Your task to perform on an android device: turn on airplane mode Image 0: 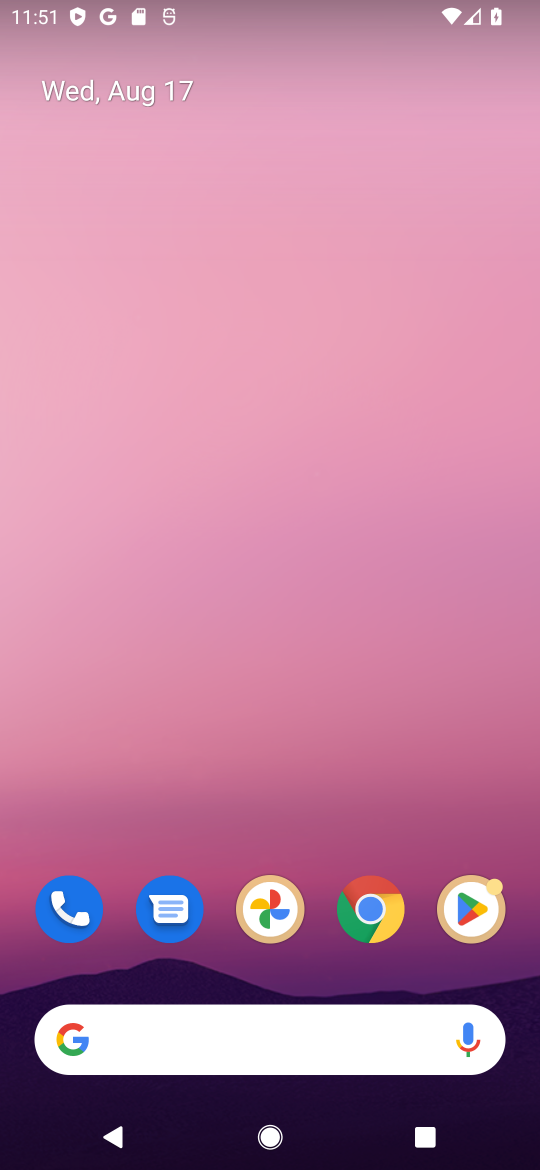
Step 0: drag from (274, 809) to (283, 10)
Your task to perform on an android device: turn on airplane mode Image 1: 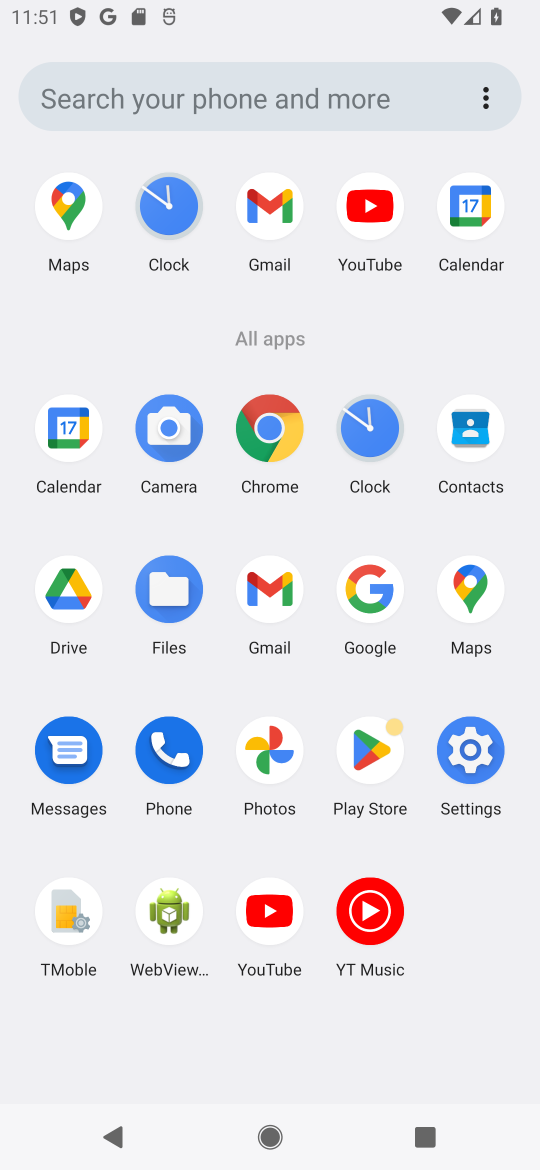
Step 1: click (469, 750)
Your task to perform on an android device: turn on airplane mode Image 2: 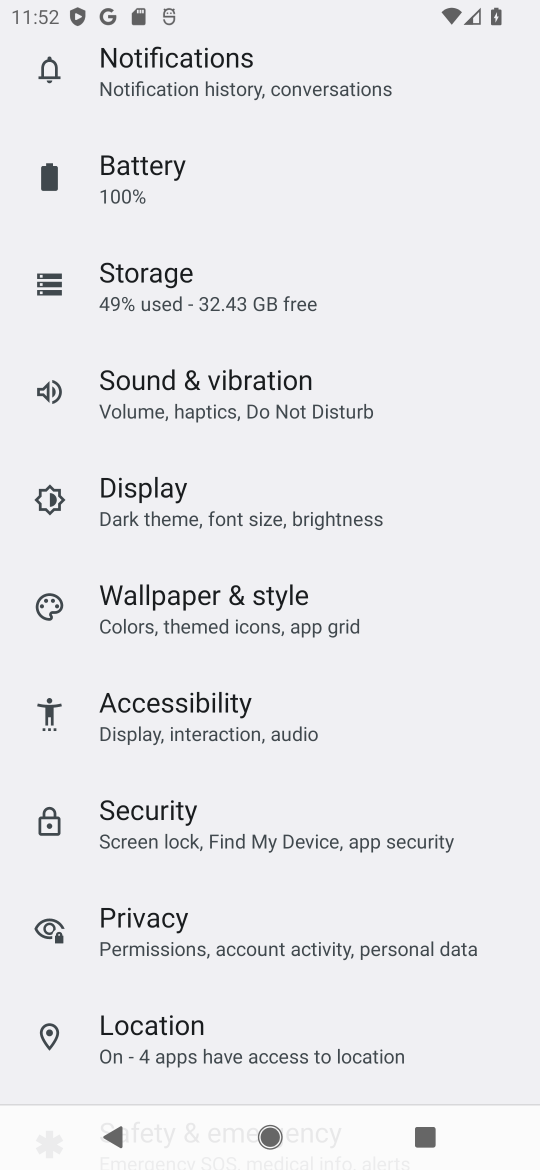
Step 2: drag from (247, 228) to (247, 892)
Your task to perform on an android device: turn on airplane mode Image 3: 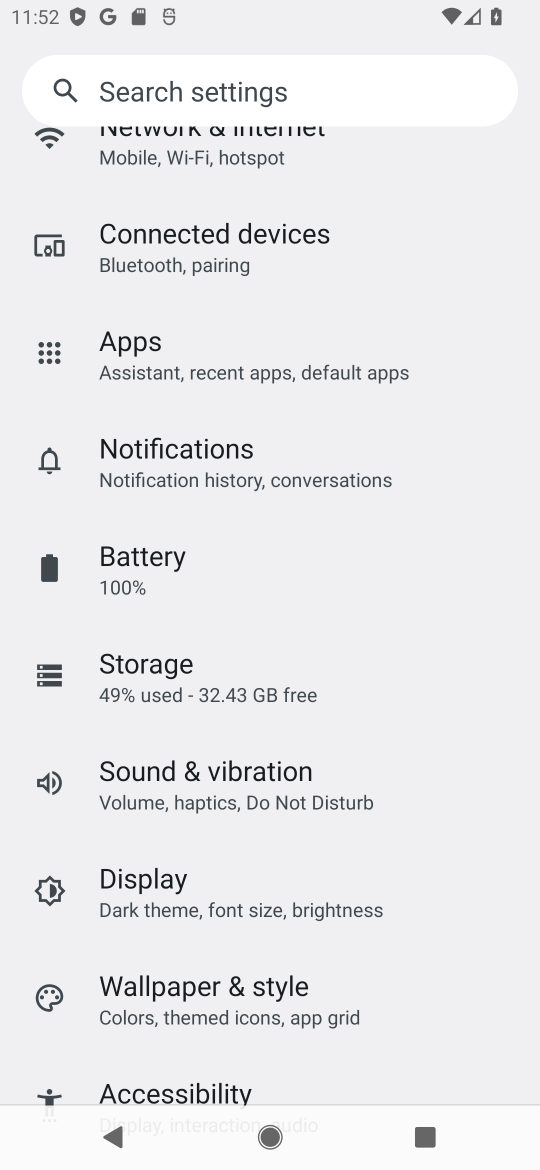
Step 3: drag from (282, 248) to (272, 704)
Your task to perform on an android device: turn on airplane mode Image 4: 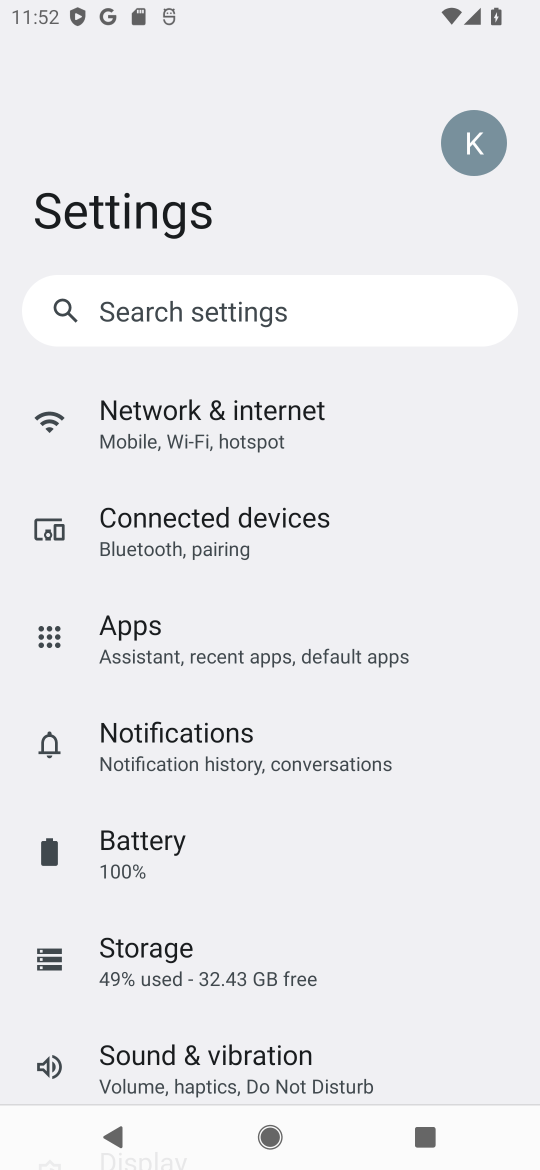
Step 4: click (227, 407)
Your task to perform on an android device: turn on airplane mode Image 5: 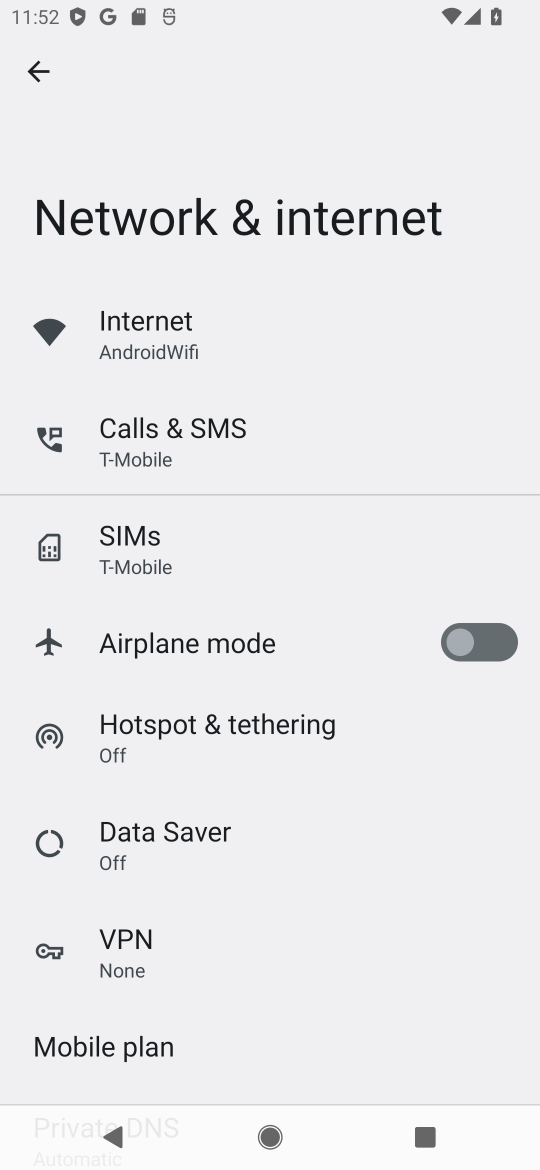
Step 5: click (449, 639)
Your task to perform on an android device: turn on airplane mode Image 6: 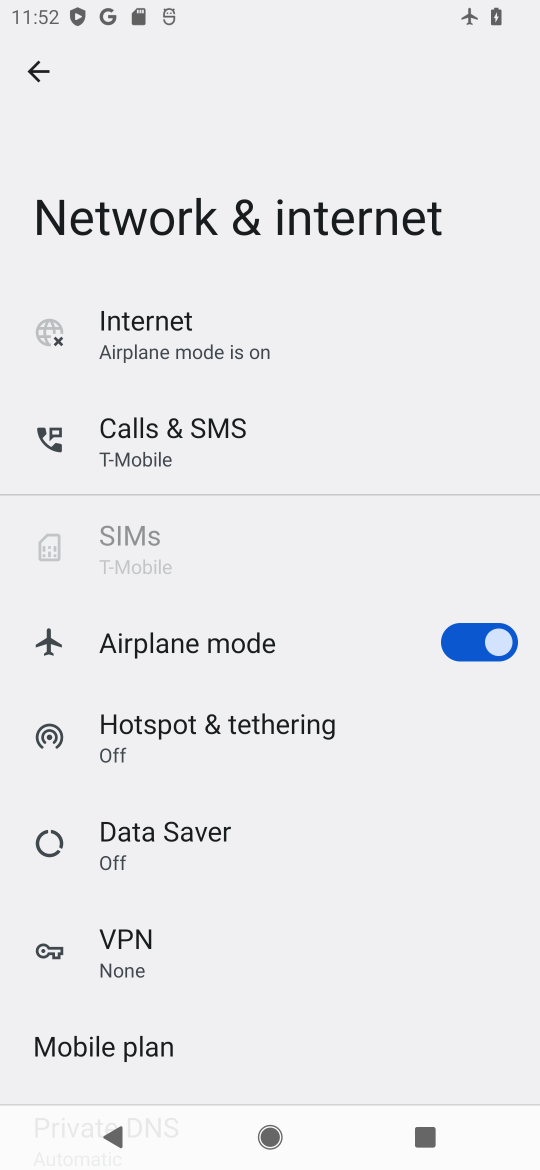
Step 6: task complete